Your task to perform on an android device: change alarm snooze length Image 0: 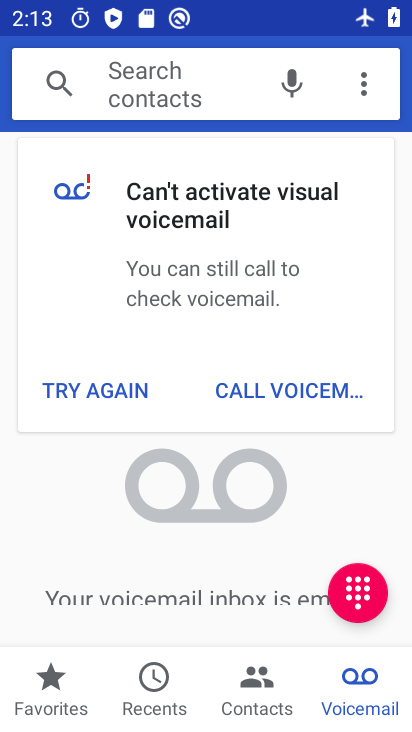
Step 0: press home button
Your task to perform on an android device: change alarm snooze length Image 1: 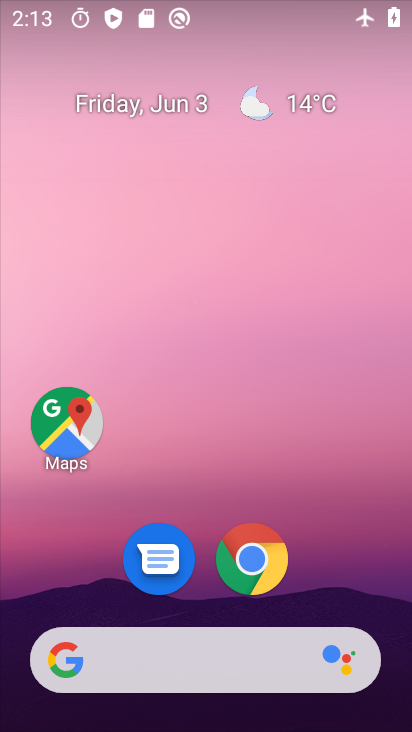
Step 1: drag from (214, 620) to (399, 34)
Your task to perform on an android device: change alarm snooze length Image 2: 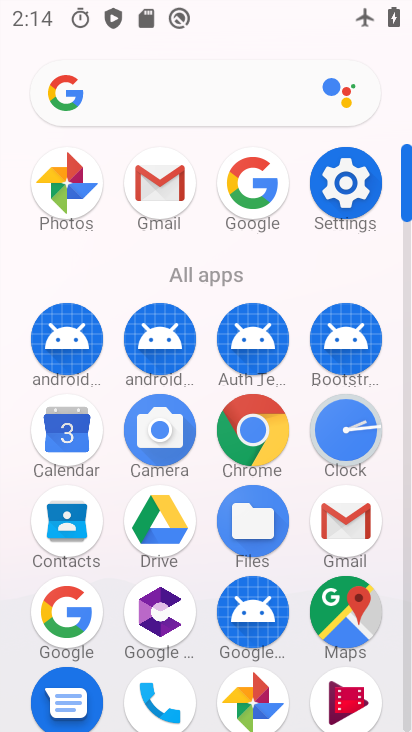
Step 2: click (354, 431)
Your task to perform on an android device: change alarm snooze length Image 3: 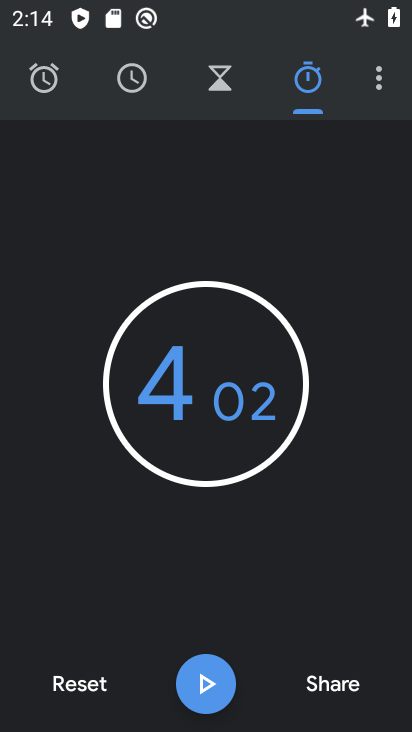
Step 3: click (378, 92)
Your task to perform on an android device: change alarm snooze length Image 4: 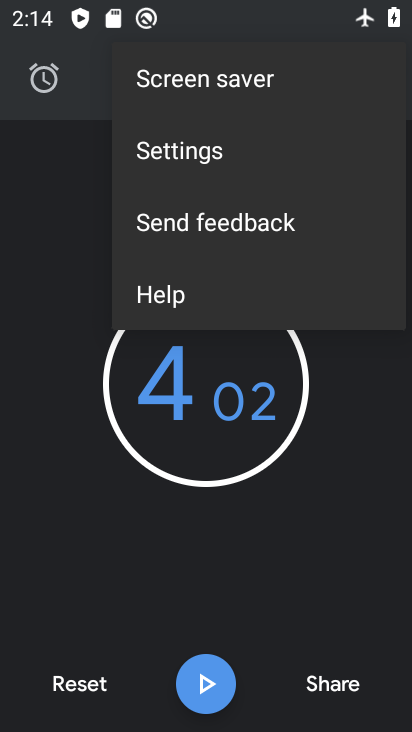
Step 4: click (173, 146)
Your task to perform on an android device: change alarm snooze length Image 5: 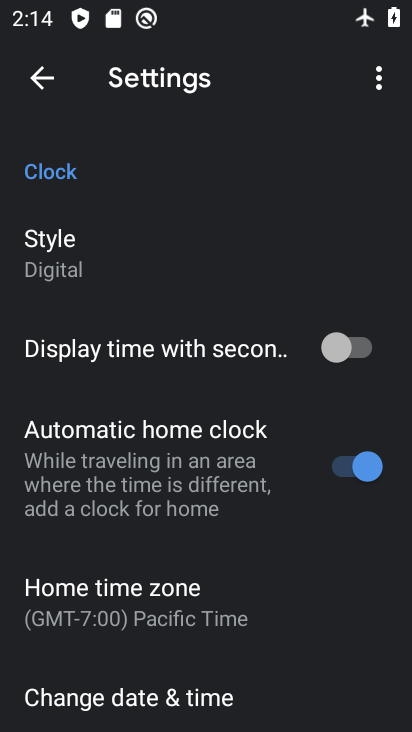
Step 5: drag from (221, 561) to (173, 62)
Your task to perform on an android device: change alarm snooze length Image 6: 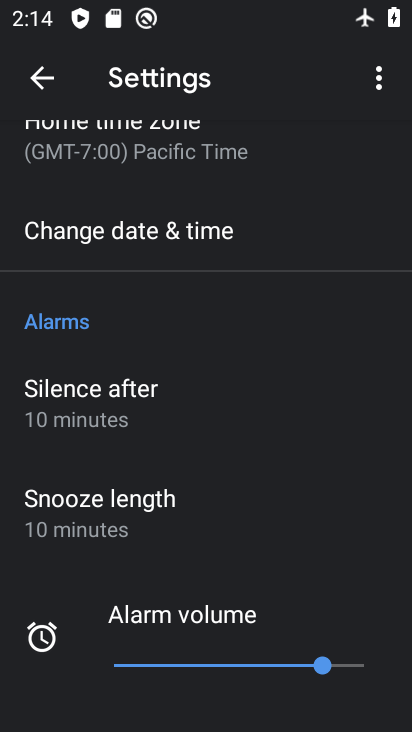
Step 6: click (110, 536)
Your task to perform on an android device: change alarm snooze length Image 7: 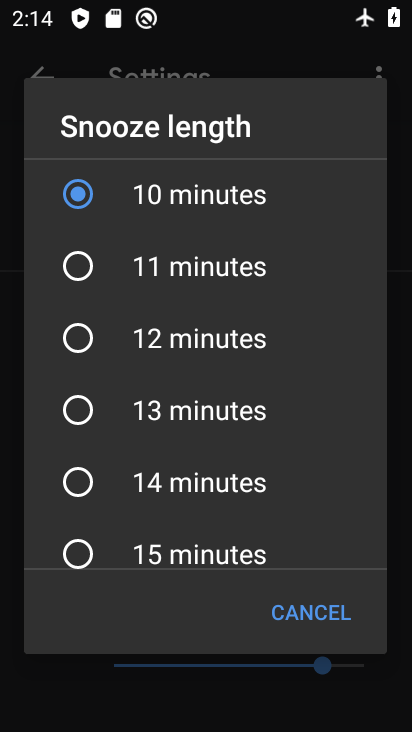
Step 7: click (118, 265)
Your task to perform on an android device: change alarm snooze length Image 8: 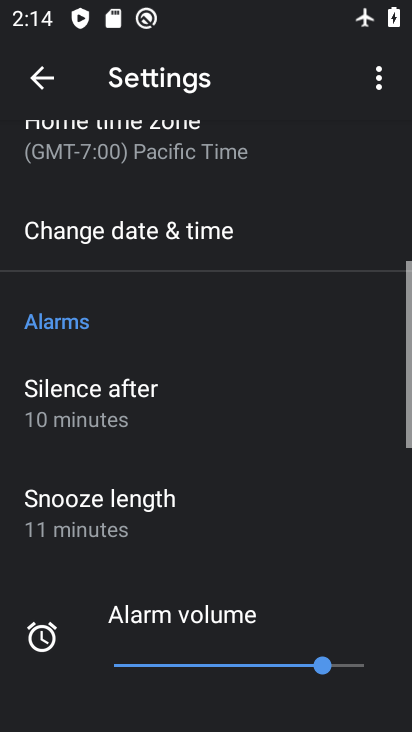
Step 8: task complete